Your task to perform on an android device: View the shopping cart on amazon. Search for energizer triple a on amazon, select the first entry, and add it to the cart. Image 0: 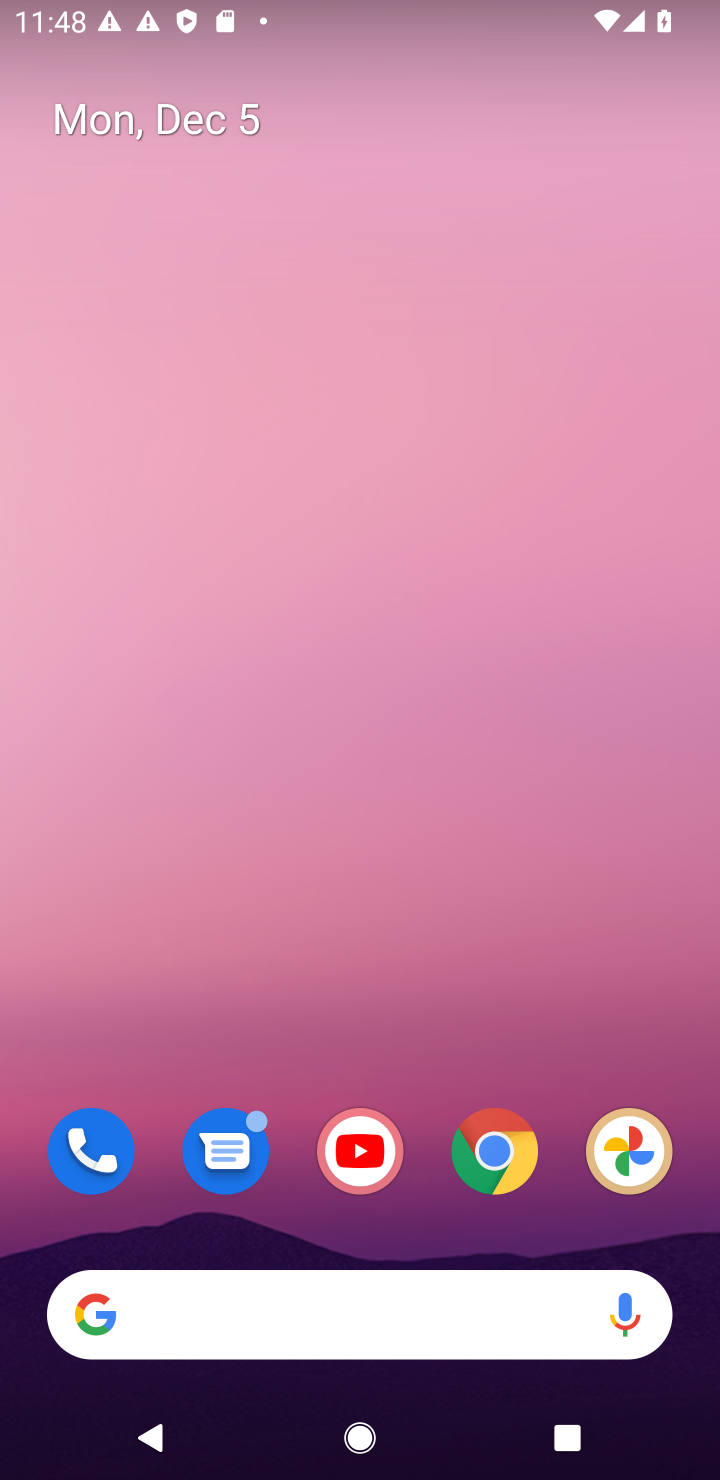
Step 0: click (486, 1161)
Your task to perform on an android device: View the shopping cart on amazon. Search for energizer triple a on amazon, select the first entry, and add it to the cart. Image 1: 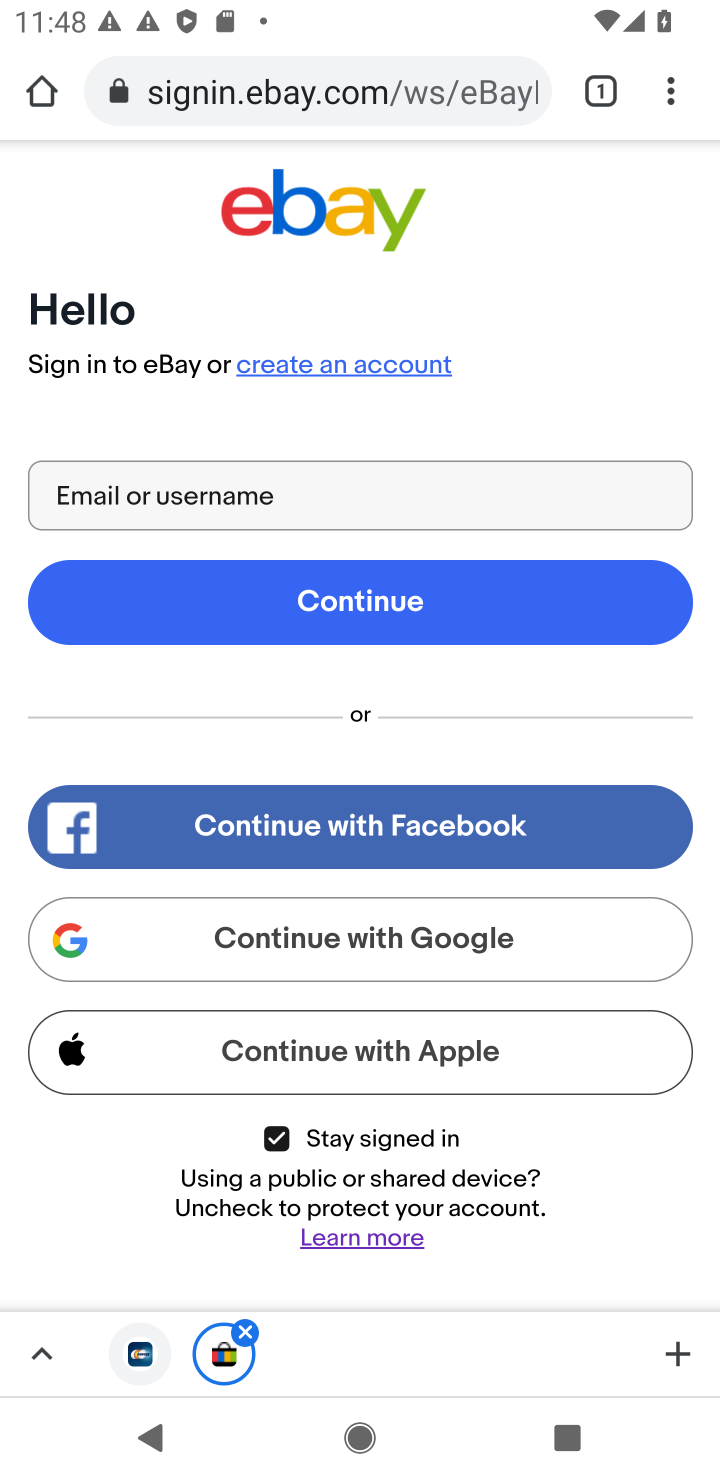
Step 1: click (264, 97)
Your task to perform on an android device: View the shopping cart on amazon. Search for energizer triple a on amazon, select the first entry, and add it to the cart. Image 2: 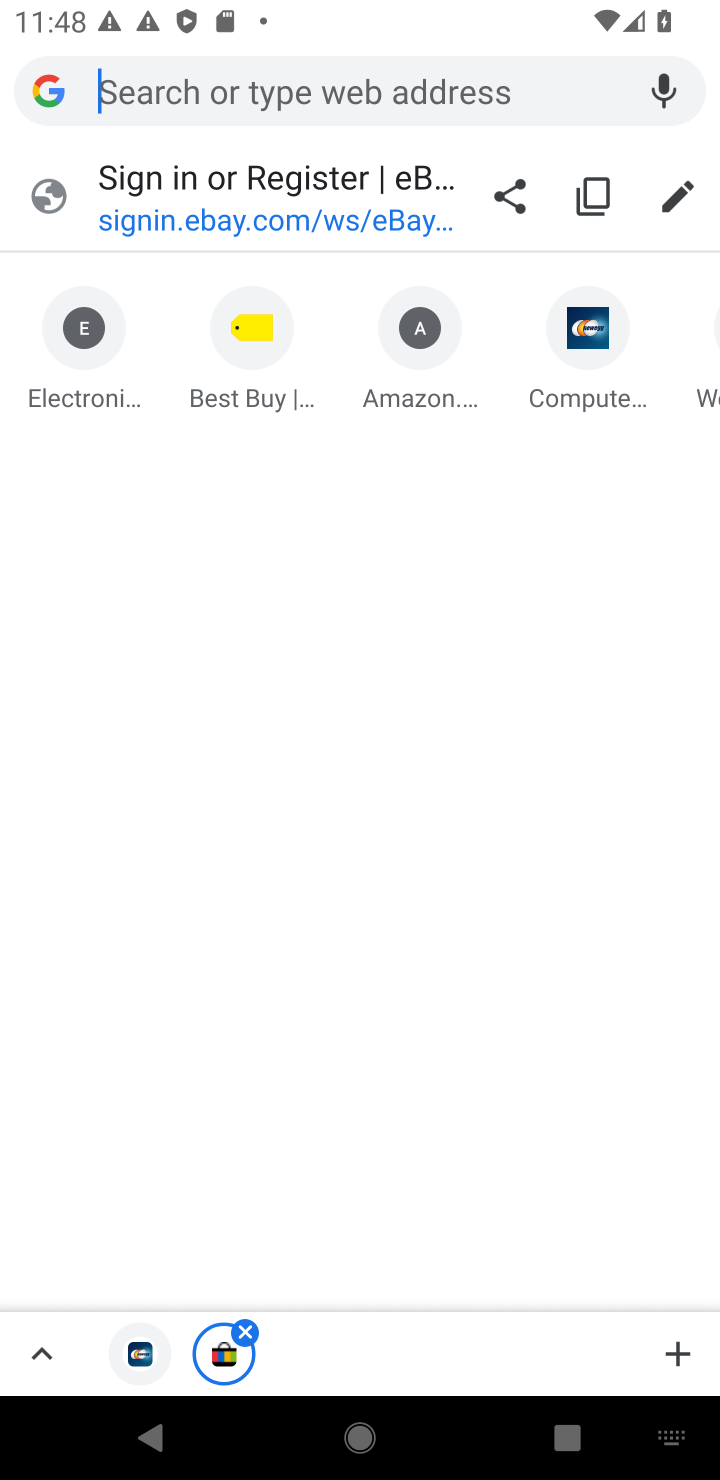
Step 2: click (410, 386)
Your task to perform on an android device: View the shopping cart on amazon. Search for energizer triple a on amazon, select the first entry, and add it to the cart. Image 3: 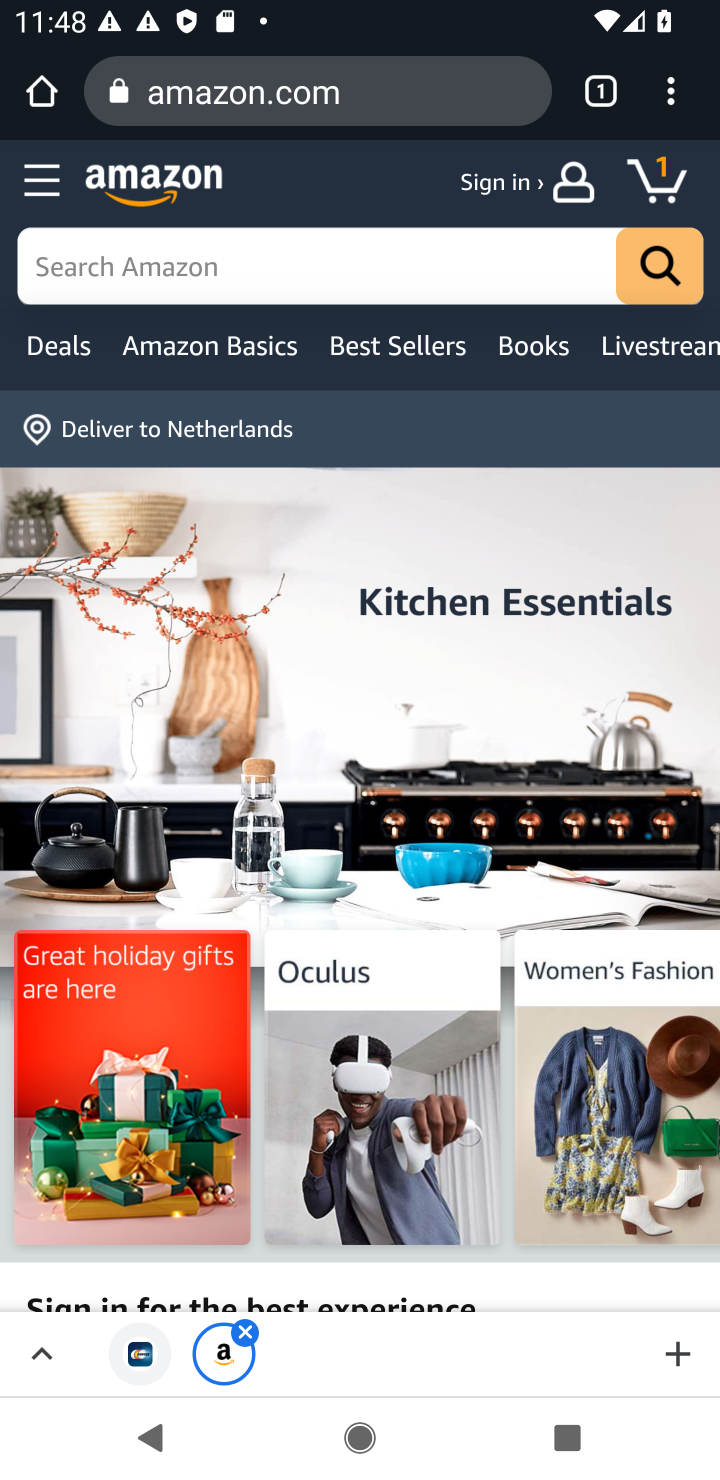
Step 3: click (653, 180)
Your task to perform on an android device: View the shopping cart on amazon. Search for energizer triple a on amazon, select the first entry, and add it to the cart. Image 4: 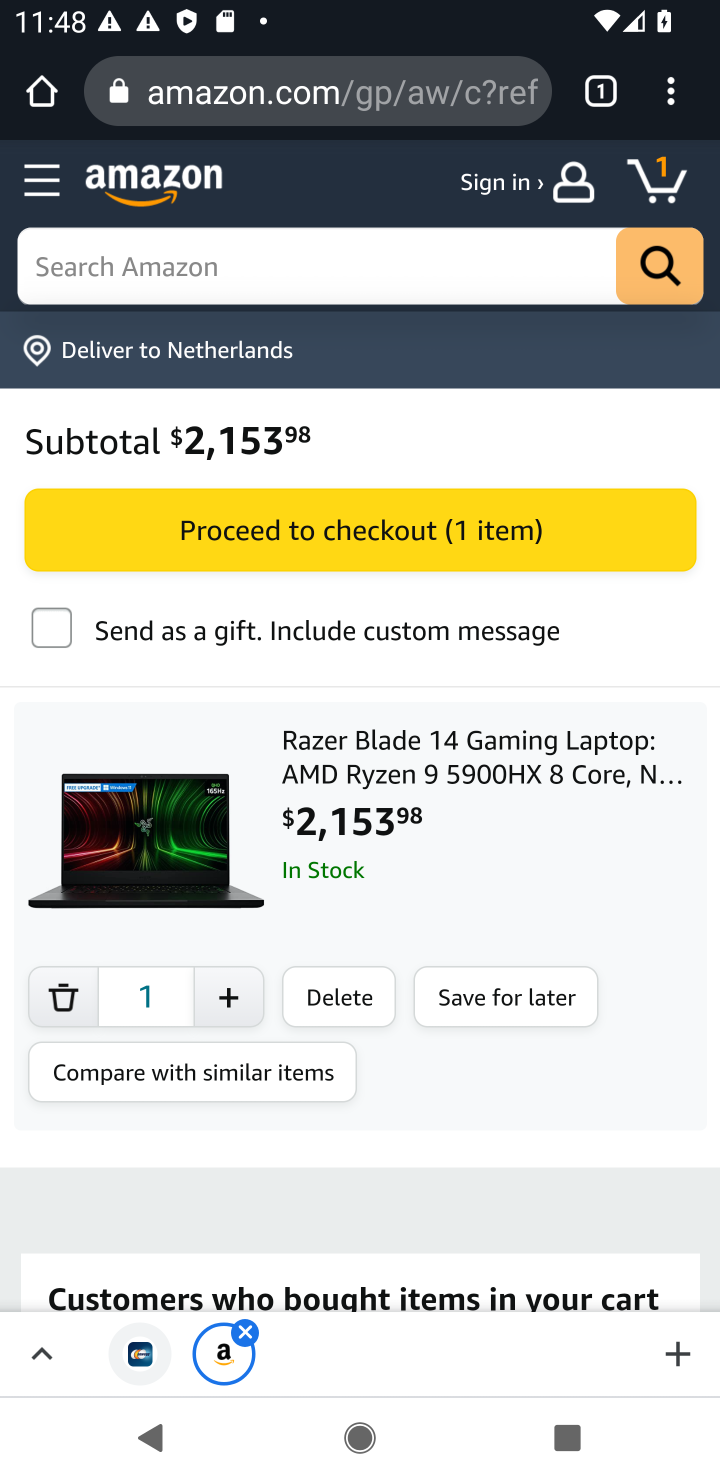
Step 4: click (202, 278)
Your task to perform on an android device: View the shopping cart on amazon. Search for energizer triple a on amazon, select the first entry, and add it to the cart. Image 5: 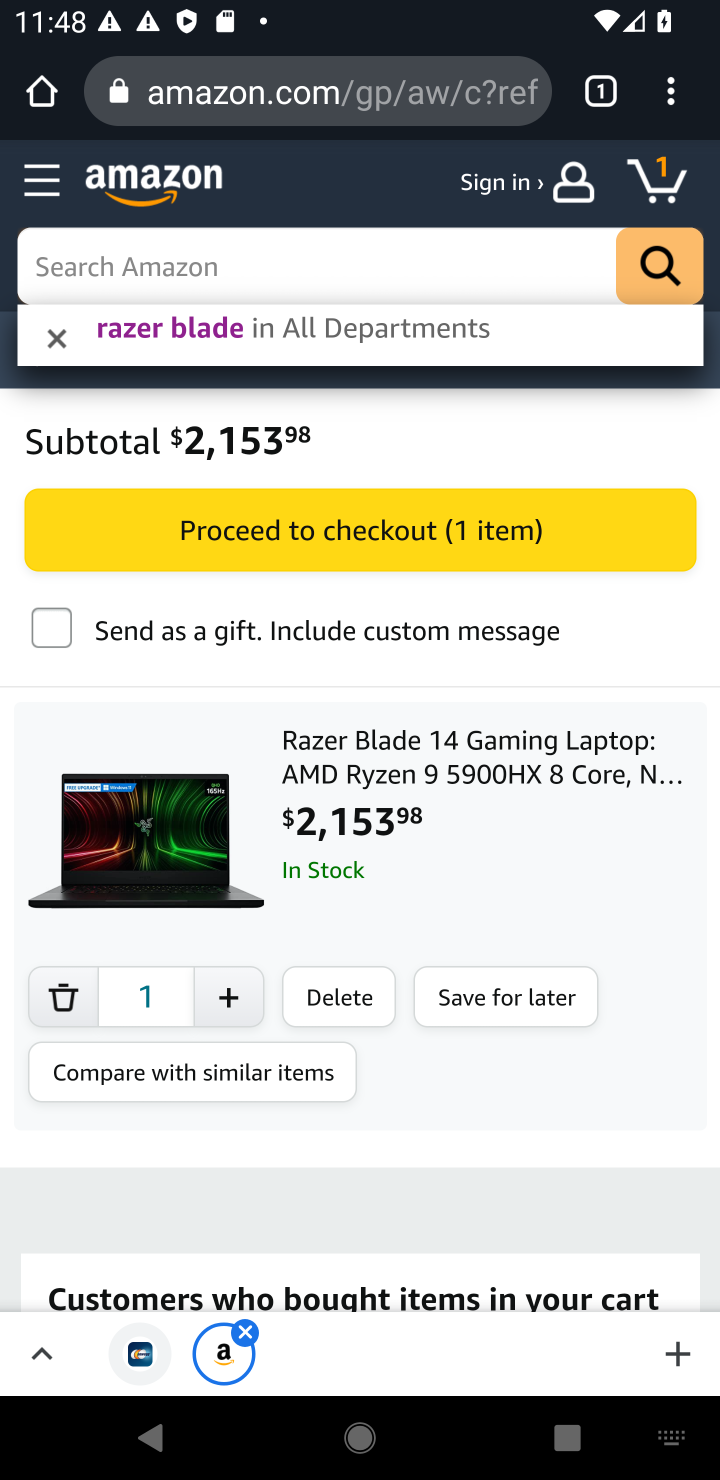
Step 5: type "energizer triple a "
Your task to perform on an android device: View the shopping cart on amazon. Search for energizer triple a on amazon, select the first entry, and add it to the cart. Image 6: 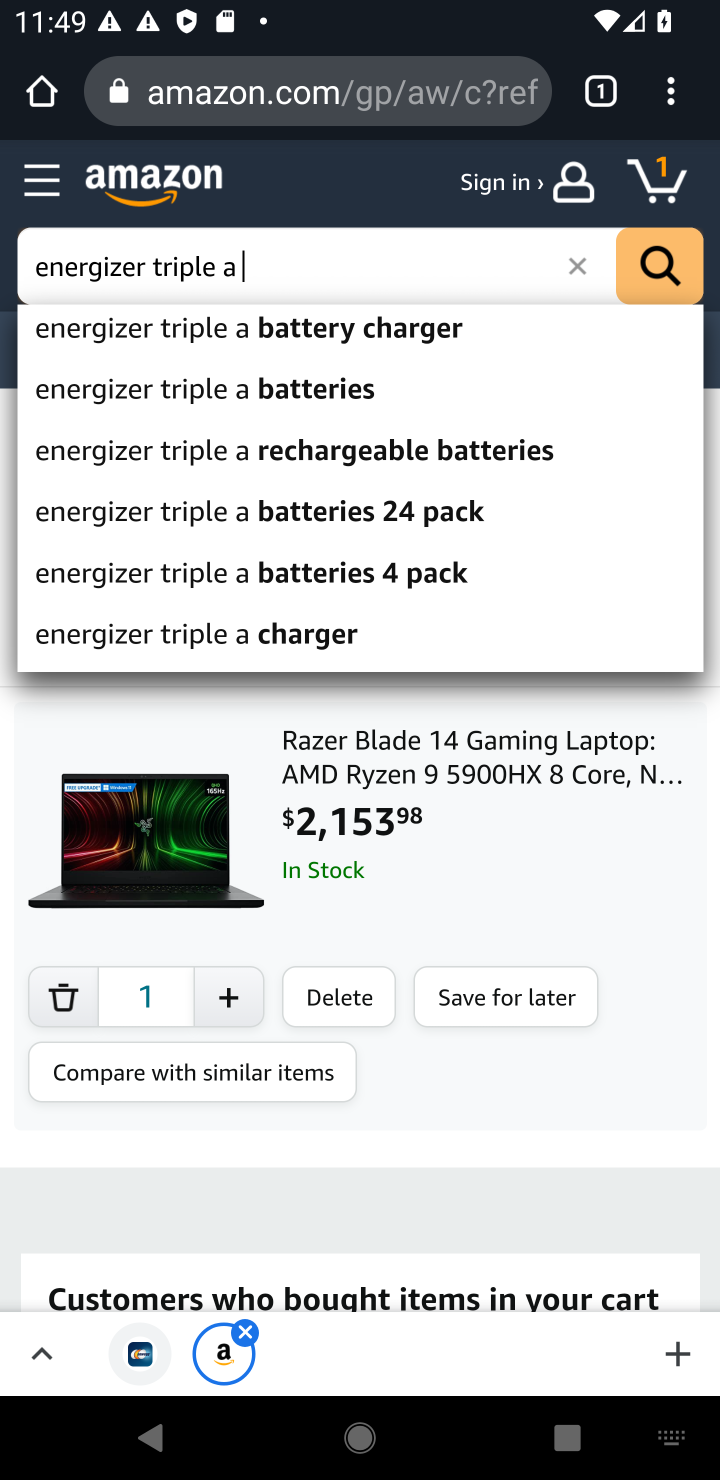
Step 6: click (188, 397)
Your task to perform on an android device: View the shopping cart on amazon. Search for energizer triple a on amazon, select the first entry, and add it to the cart. Image 7: 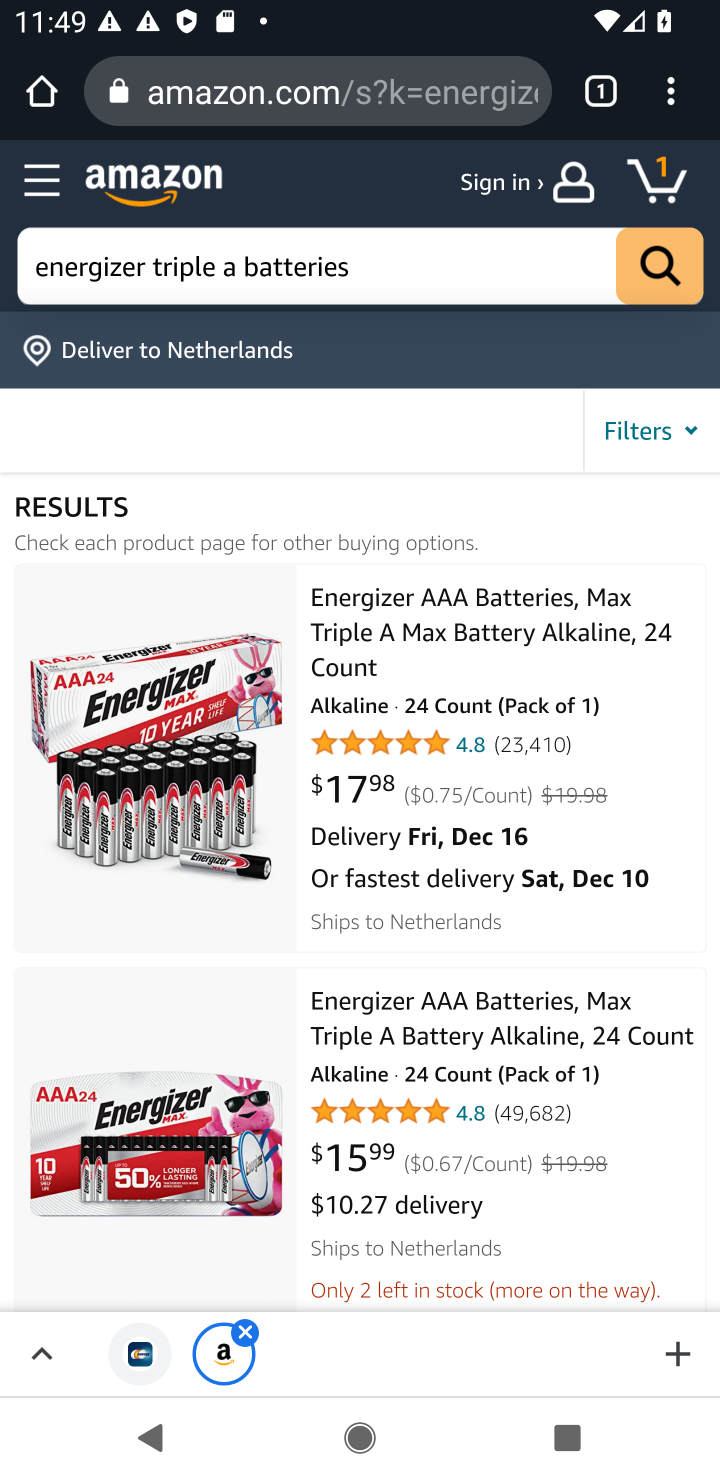
Step 7: click (341, 632)
Your task to perform on an android device: View the shopping cart on amazon. Search for energizer triple a on amazon, select the first entry, and add it to the cart. Image 8: 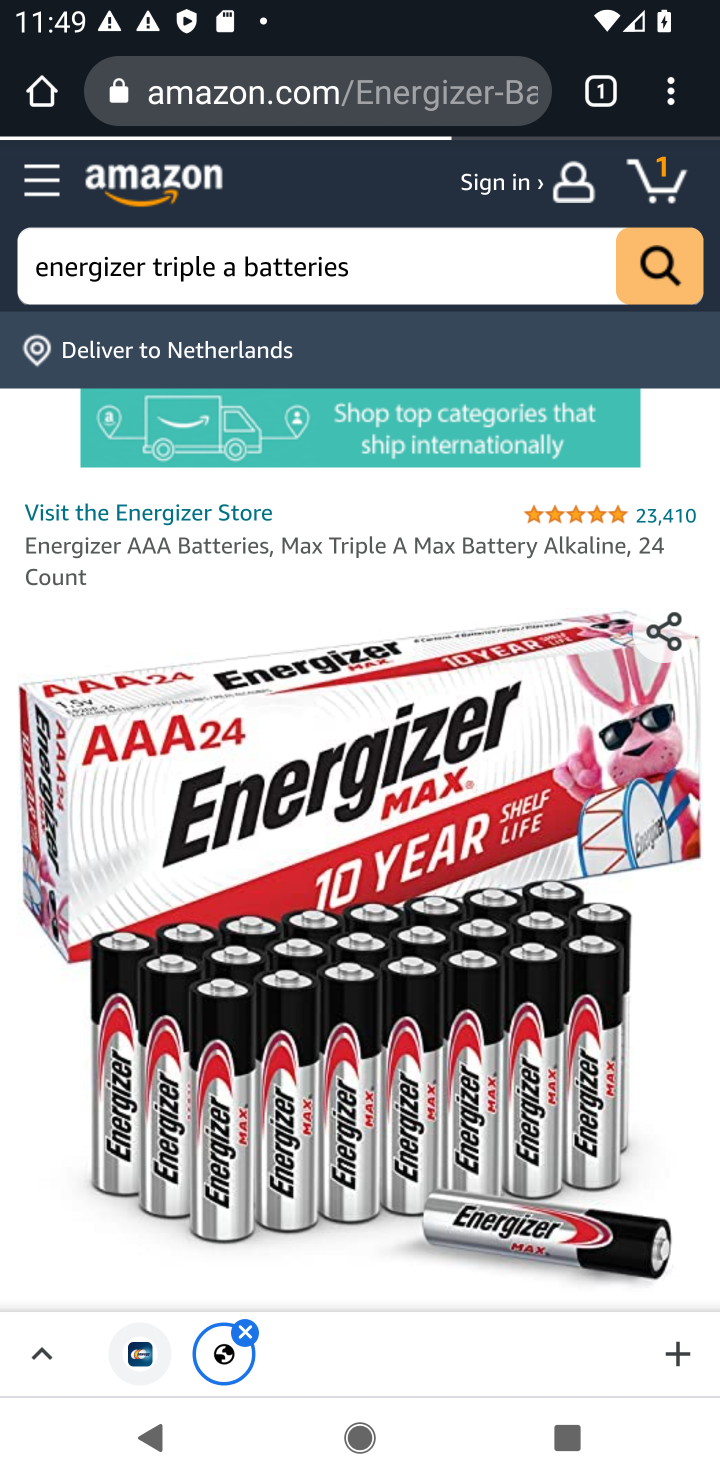
Step 8: drag from (392, 982) to (405, 530)
Your task to perform on an android device: View the shopping cart on amazon. Search for energizer triple a on amazon, select the first entry, and add it to the cart. Image 9: 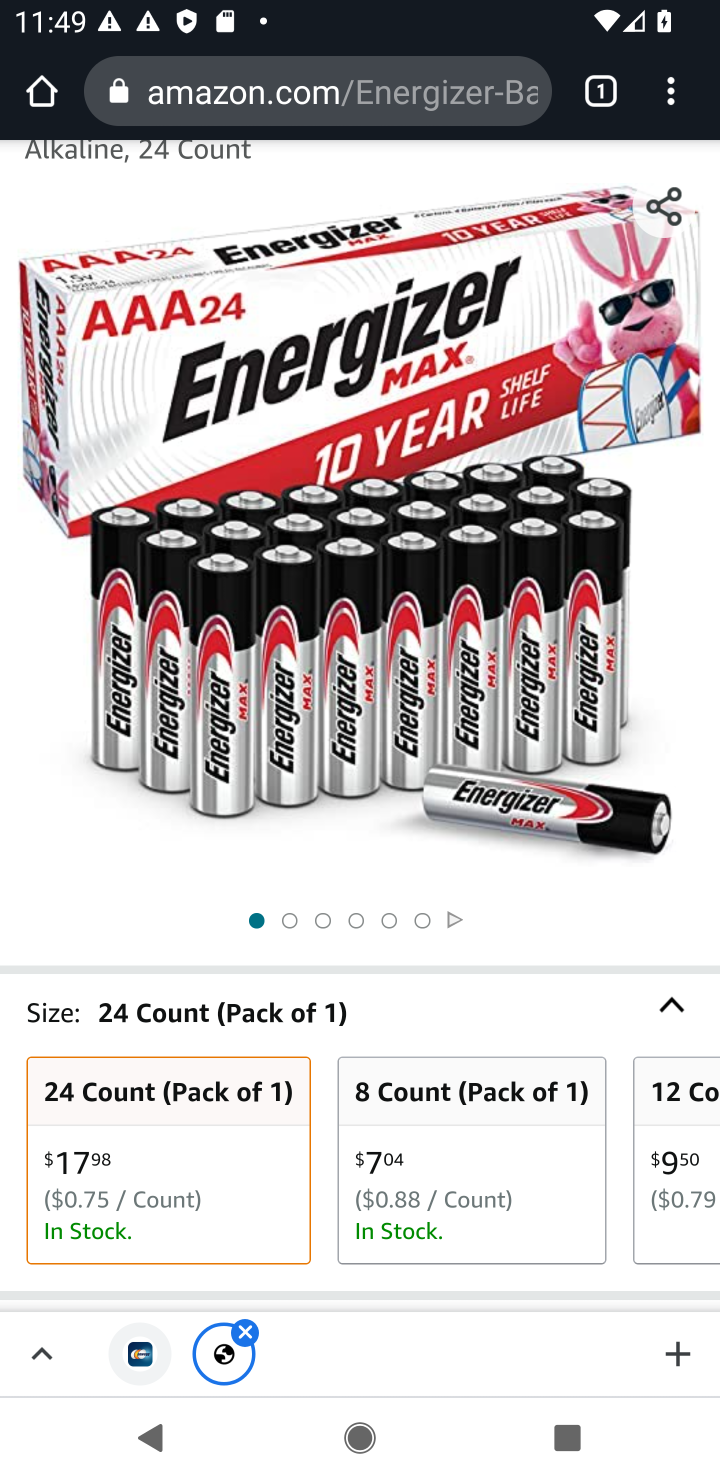
Step 9: drag from (383, 849) to (383, 508)
Your task to perform on an android device: View the shopping cart on amazon. Search for energizer triple a on amazon, select the first entry, and add it to the cart. Image 10: 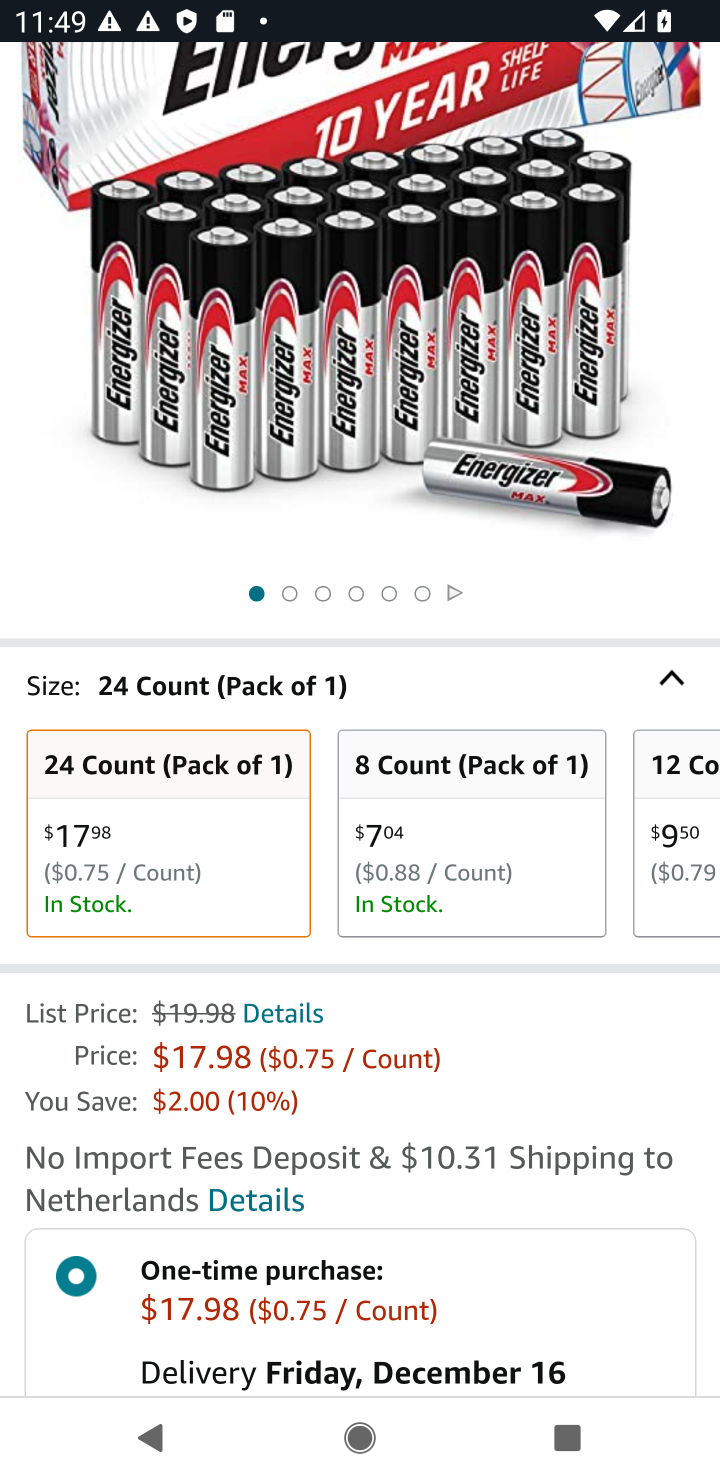
Step 10: drag from (407, 950) to (413, 475)
Your task to perform on an android device: View the shopping cart on amazon. Search for energizer triple a on amazon, select the first entry, and add it to the cart. Image 11: 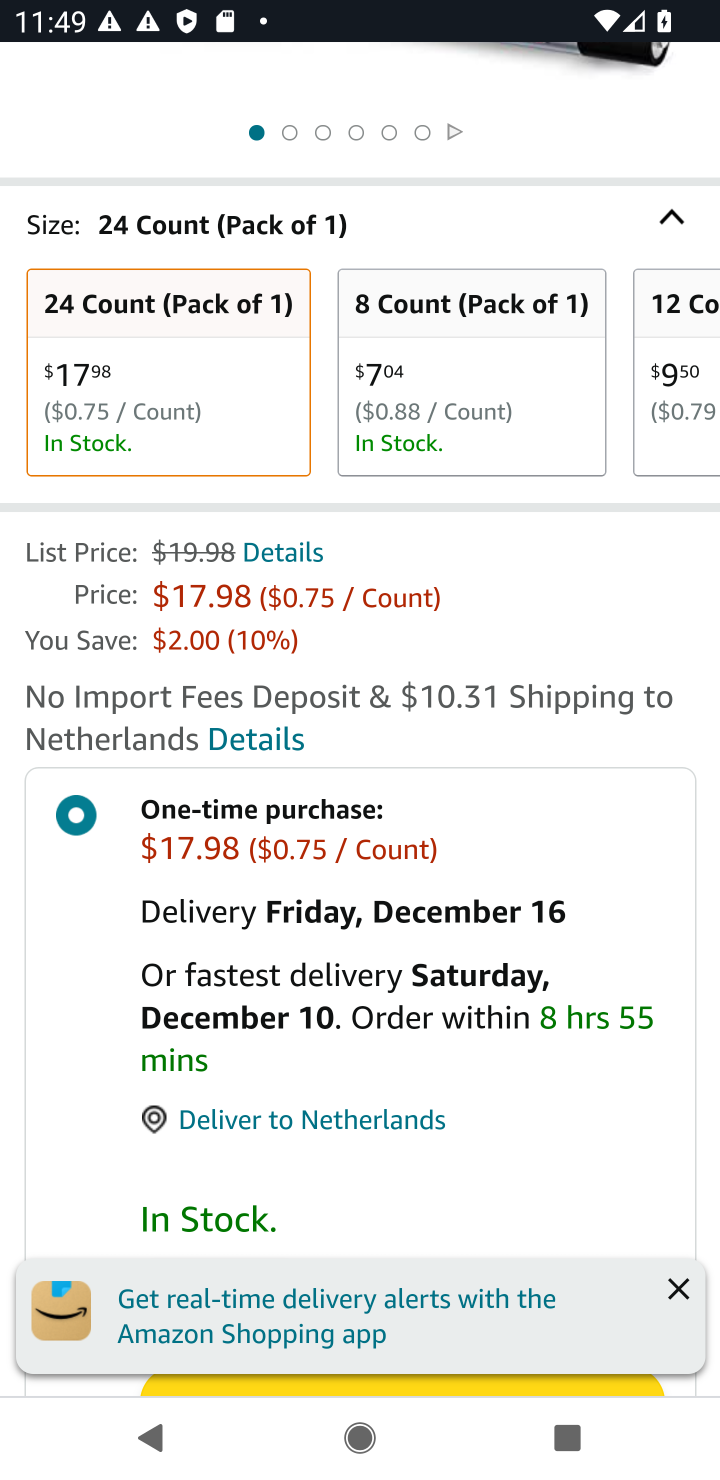
Step 11: drag from (340, 984) to (348, 491)
Your task to perform on an android device: View the shopping cart on amazon. Search for energizer triple a on amazon, select the first entry, and add it to the cart. Image 12: 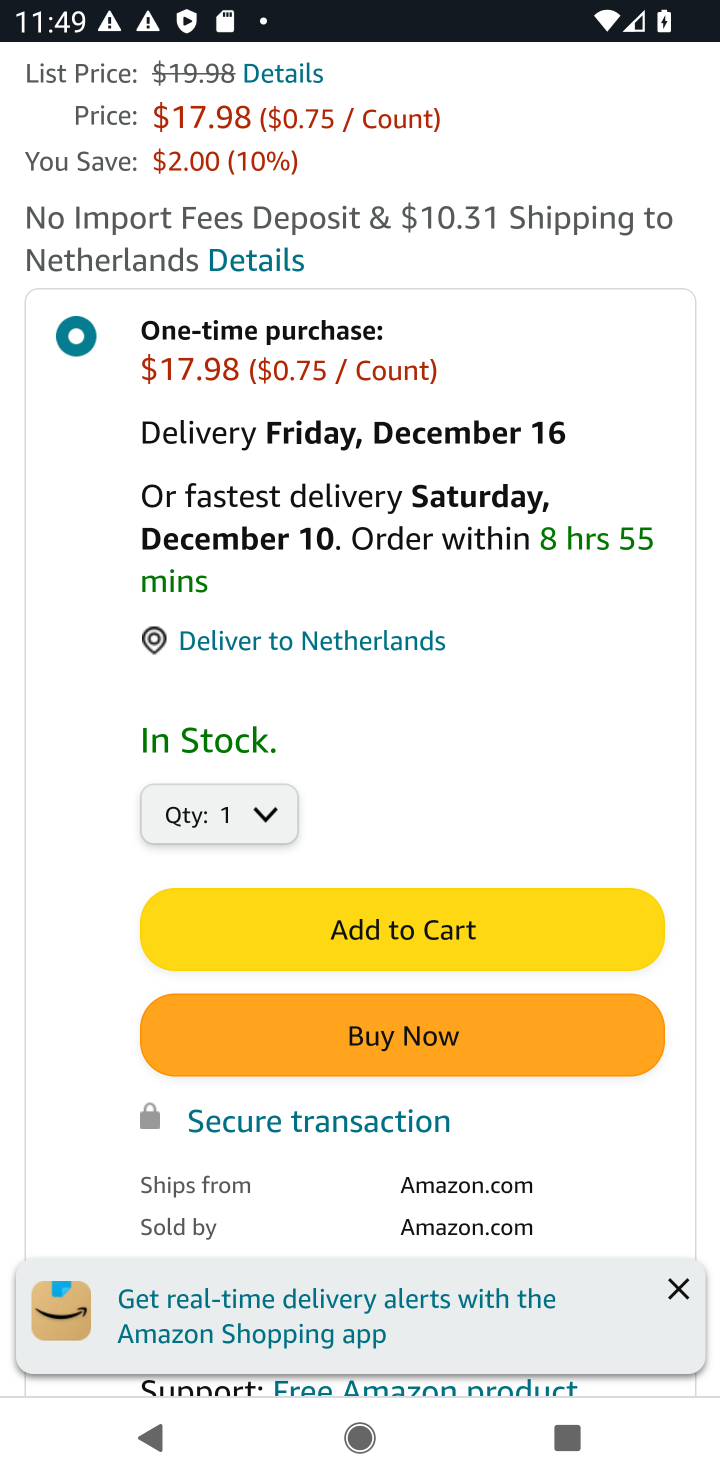
Step 12: click (353, 917)
Your task to perform on an android device: View the shopping cart on amazon. Search for energizer triple a on amazon, select the first entry, and add it to the cart. Image 13: 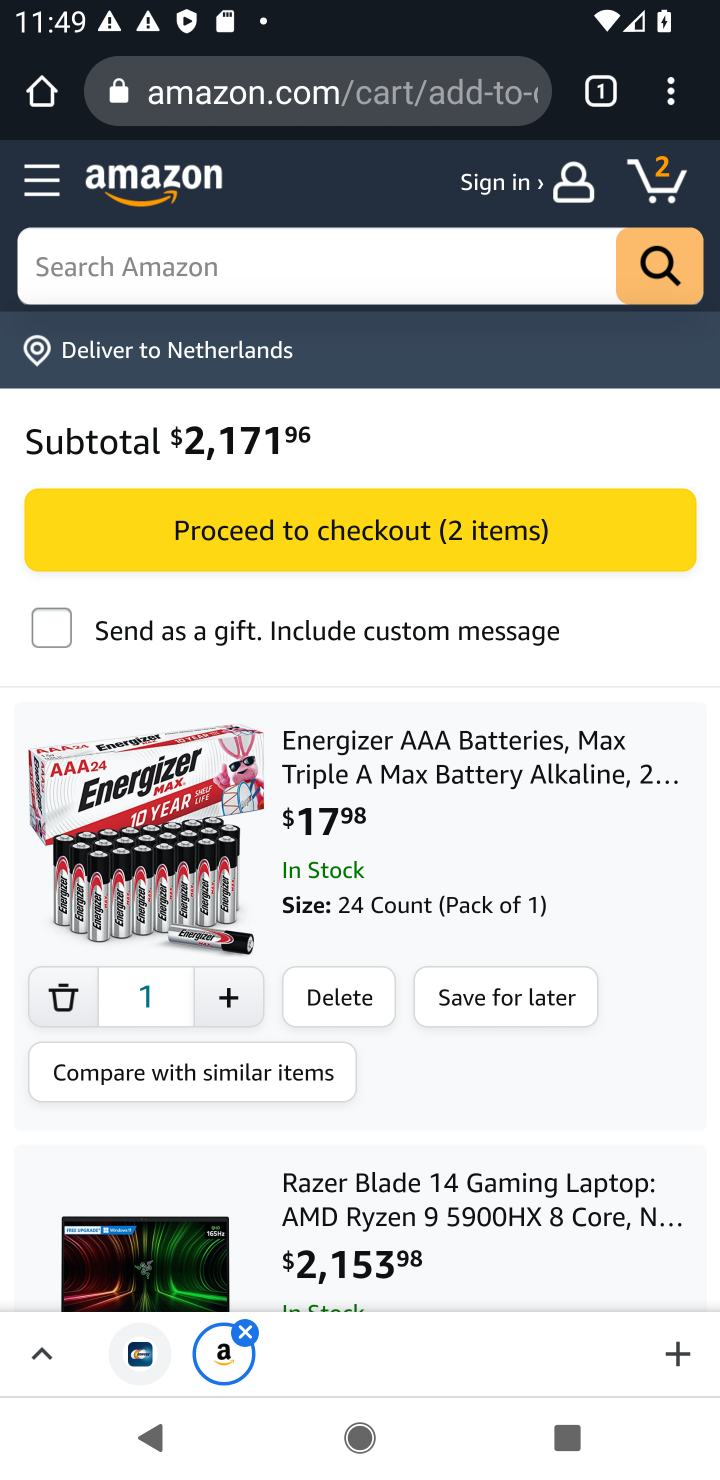
Step 13: task complete